Your task to perform on an android device: open device folders in google photos Image 0: 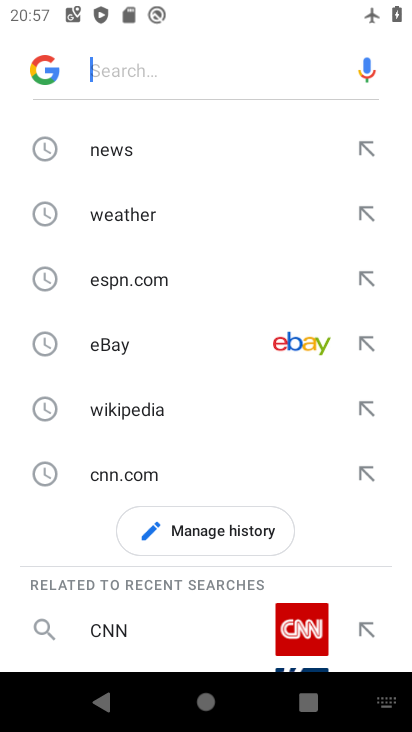
Step 0: press home button
Your task to perform on an android device: open device folders in google photos Image 1: 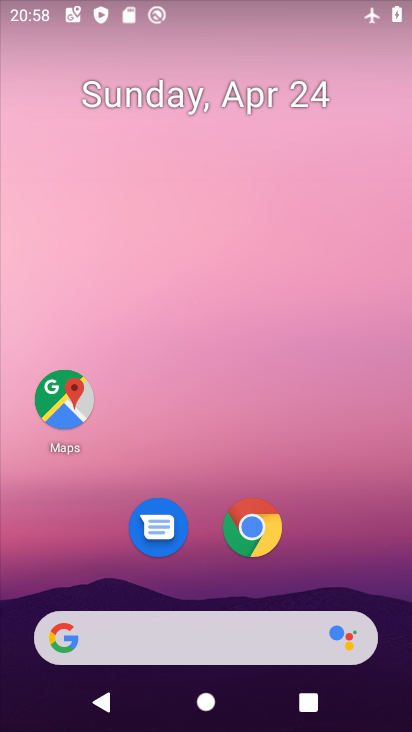
Step 1: click (403, 589)
Your task to perform on an android device: open device folders in google photos Image 2: 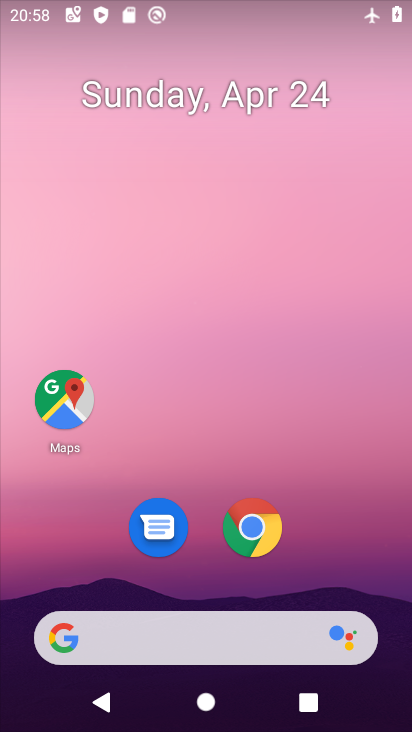
Step 2: drag from (361, 581) to (410, 634)
Your task to perform on an android device: open device folders in google photos Image 3: 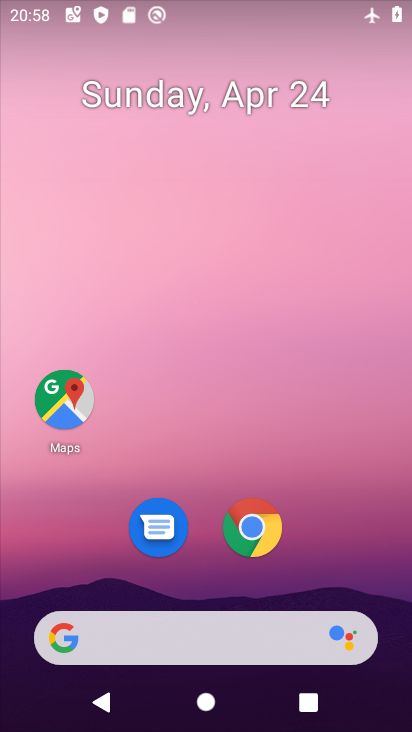
Step 3: drag from (402, 579) to (409, 6)
Your task to perform on an android device: open device folders in google photos Image 4: 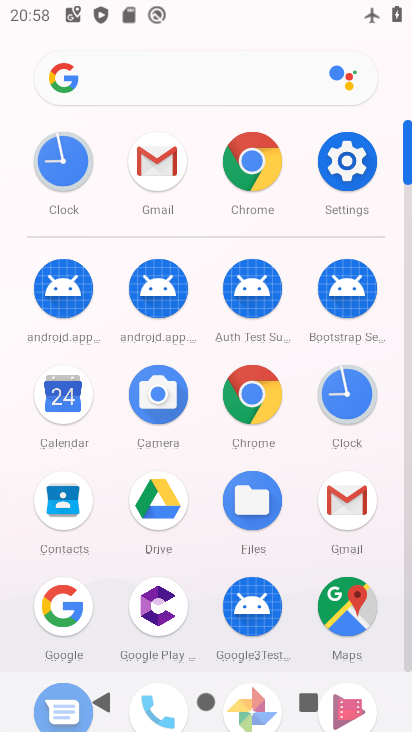
Step 4: drag from (405, 529) to (411, 449)
Your task to perform on an android device: open device folders in google photos Image 5: 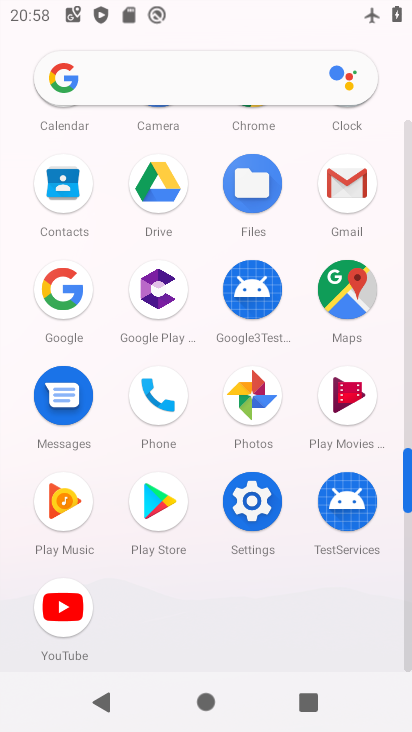
Step 5: click (247, 397)
Your task to perform on an android device: open device folders in google photos Image 6: 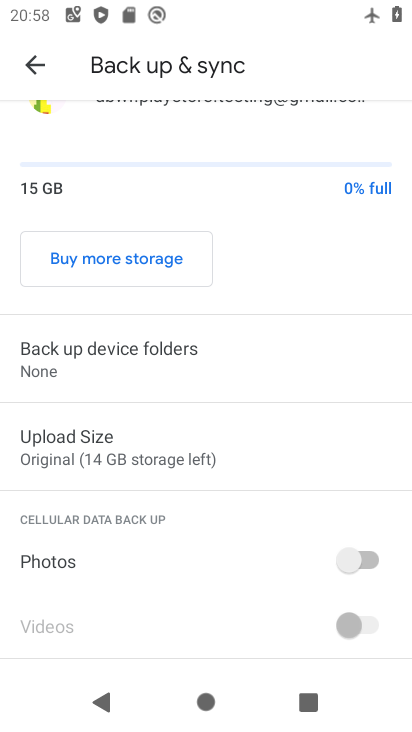
Step 6: click (41, 72)
Your task to perform on an android device: open device folders in google photos Image 7: 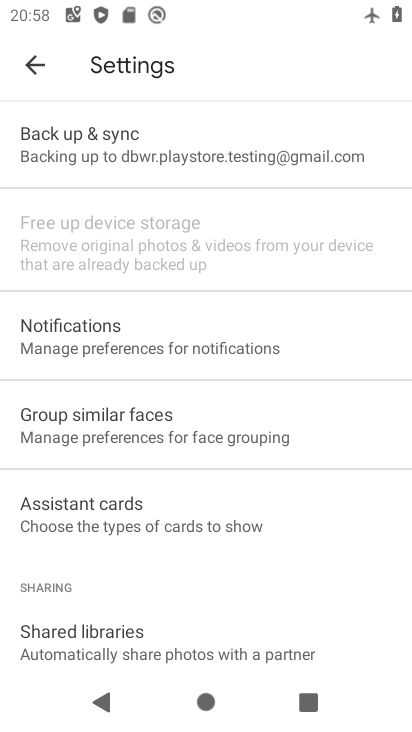
Step 7: click (29, 68)
Your task to perform on an android device: open device folders in google photos Image 8: 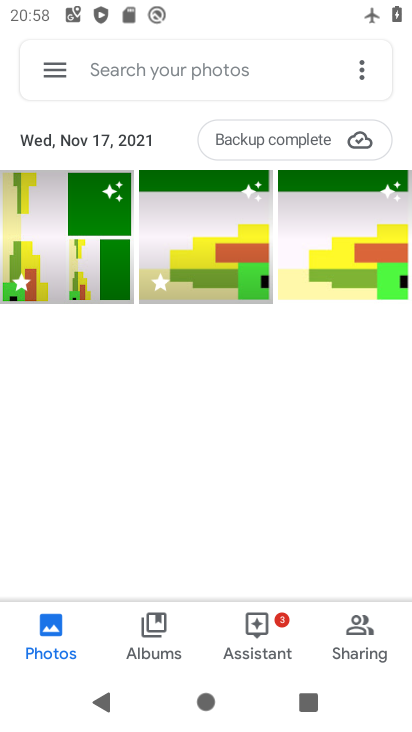
Step 8: click (50, 71)
Your task to perform on an android device: open device folders in google photos Image 9: 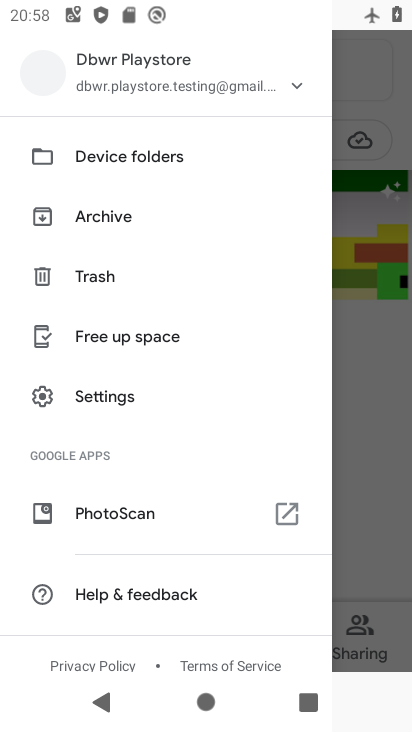
Step 9: click (101, 174)
Your task to perform on an android device: open device folders in google photos Image 10: 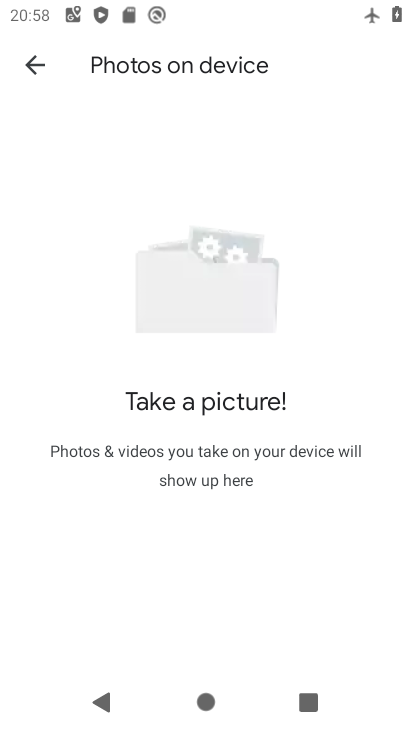
Step 10: task complete